Your task to perform on an android device: check the backup settings in the google photos Image 0: 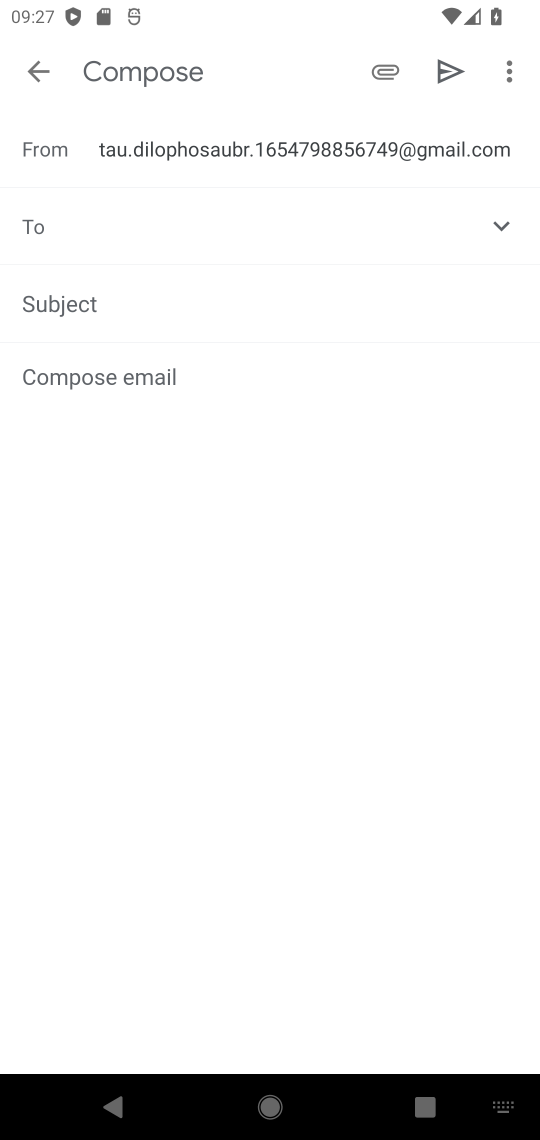
Step 0: press home button
Your task to perform on an android device: check the backup settings in the google photos Image 1: 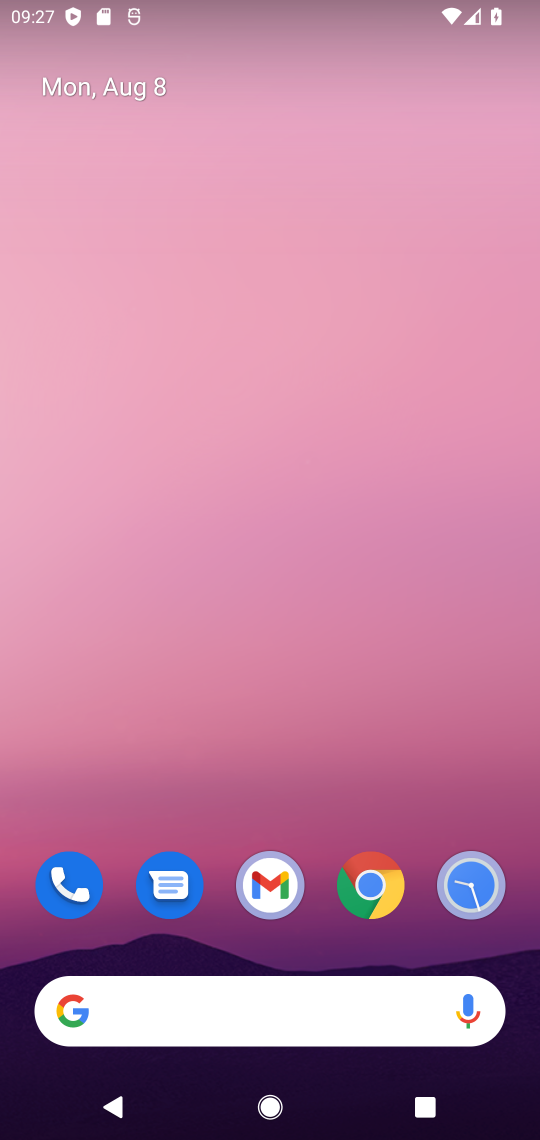
Step 1: drag from (393, 872) to (197, 121)
Your task to perform on an android device: check the backup settings in the google photos Image 2: 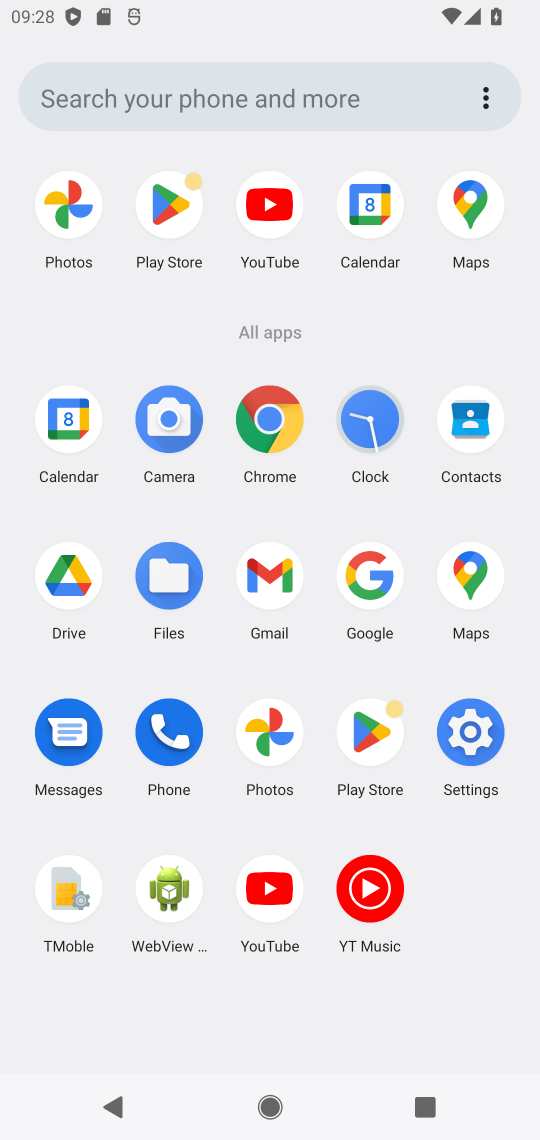
Step 2: click (261, 716)
Your task to perform on an android device: check the backup settings in the google photos Image 3: 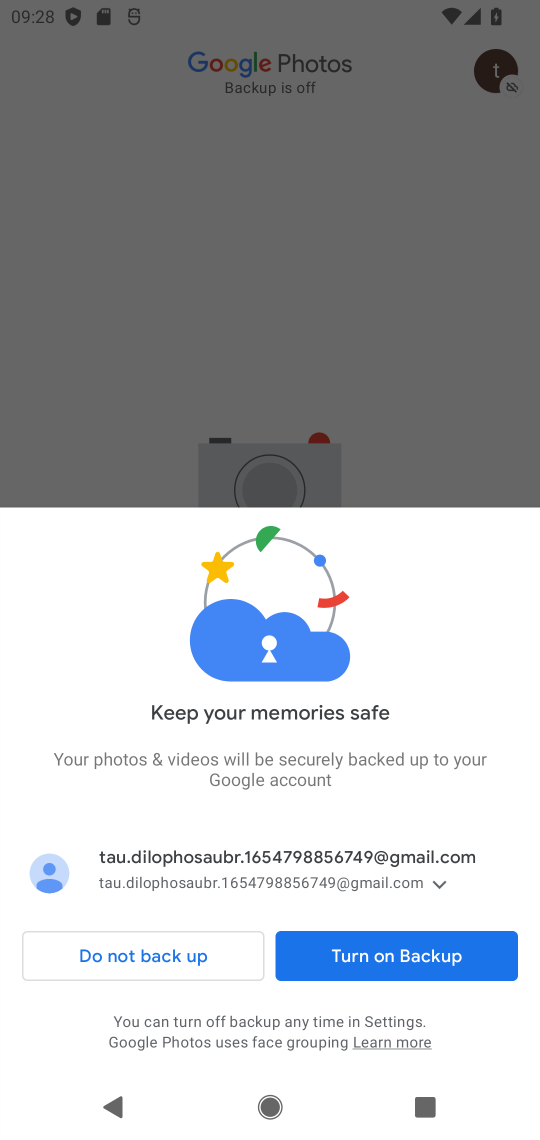
Step 3: click (204, 949)
Your task to perform on an android device: check the backup settings in the google photos Image 4: 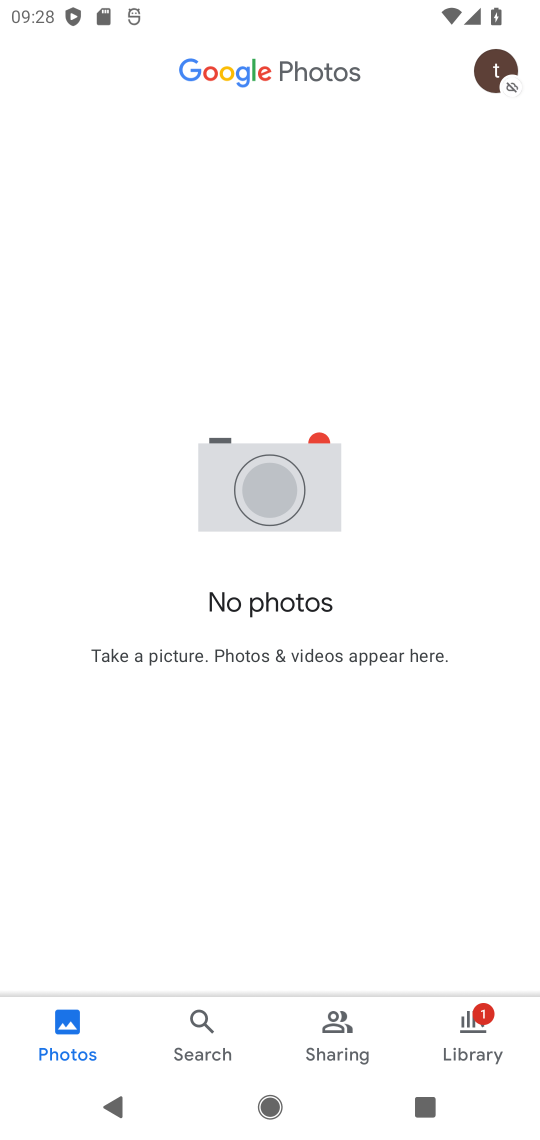
Step 4: click (486, 69)
Your task to perform on an android device: check the backup settings in the google photos Image 5: 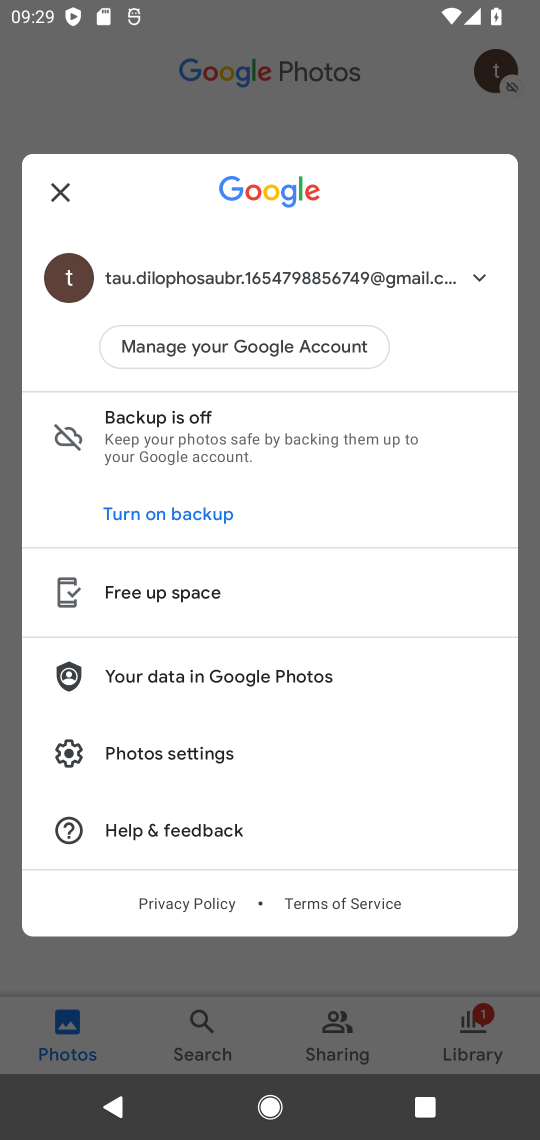
Step 5: click (164, 764)
Your task to perform on an android device: check the backup settings in the google photos Image 6: 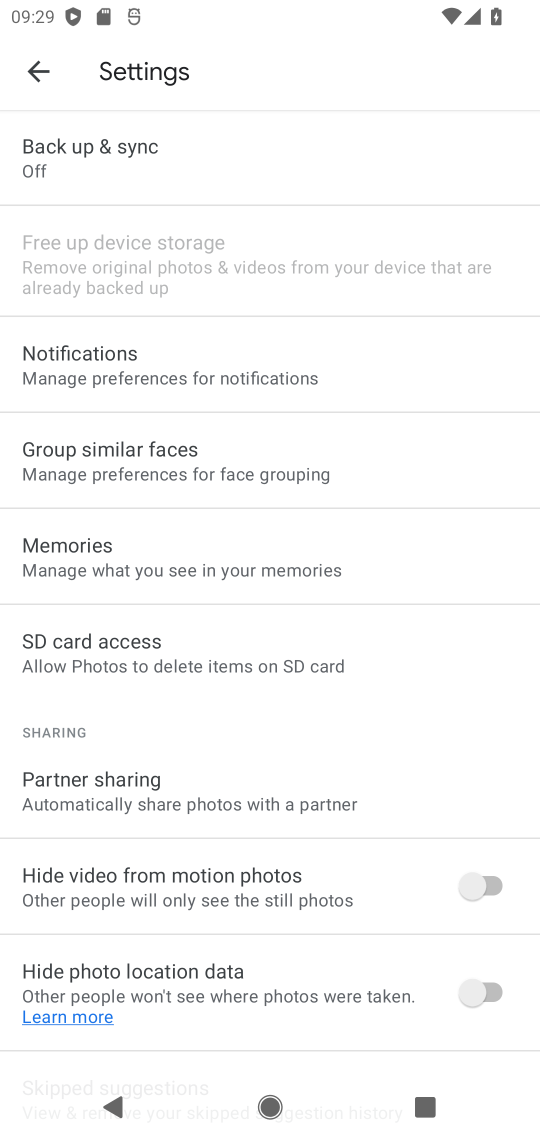
Step 6: click (141, 177)
Your task to perform on an android device: check the backup settings in the google photos Image 7: 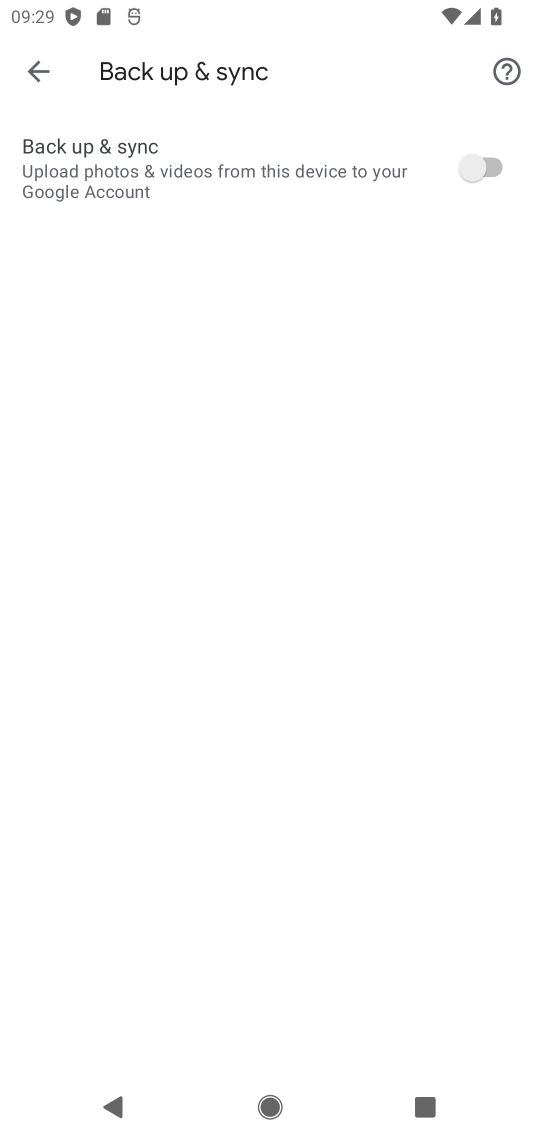
Step 7: click (207, 183)
Your task to perform on an android device: check the backup settings in the google photos Image 8: 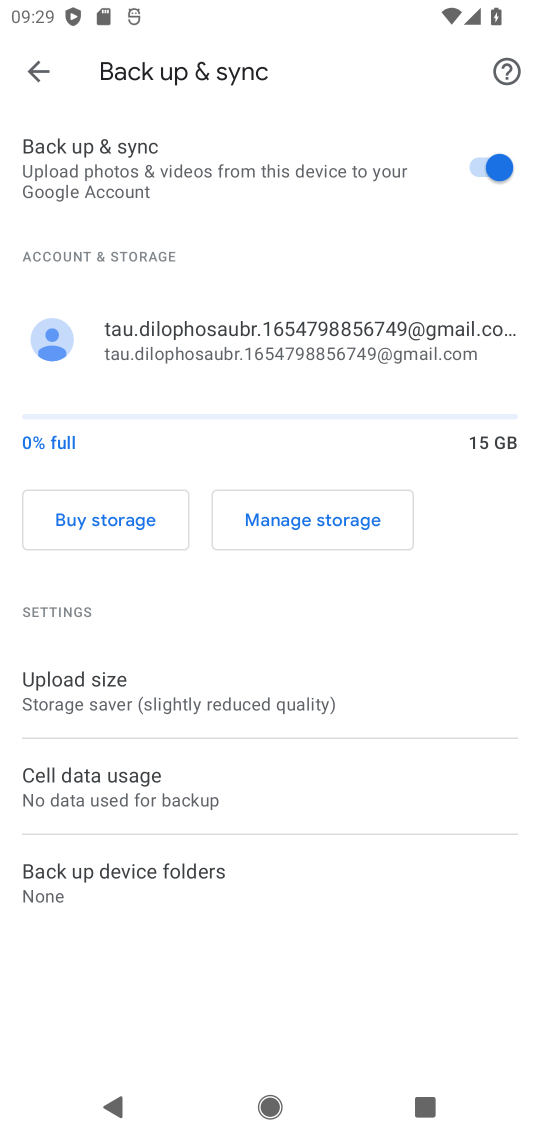
Step 8: task complete